Your task to perform on an android device: open a bookmark in the chrome app Image 0: 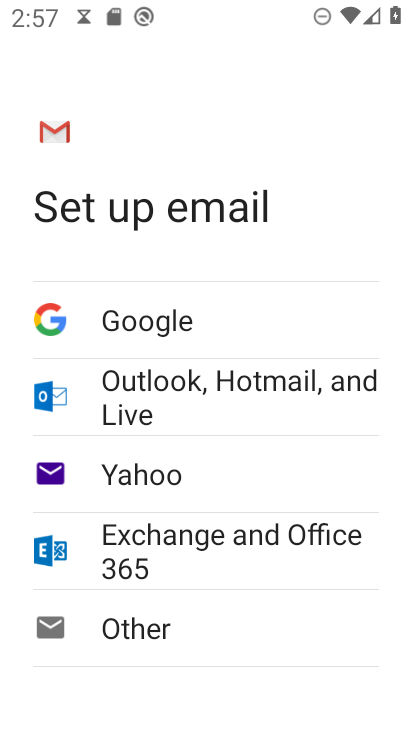
Step 0: press back button
Your task to perform on an android device: open a bookmark in the chrome app Image 1: 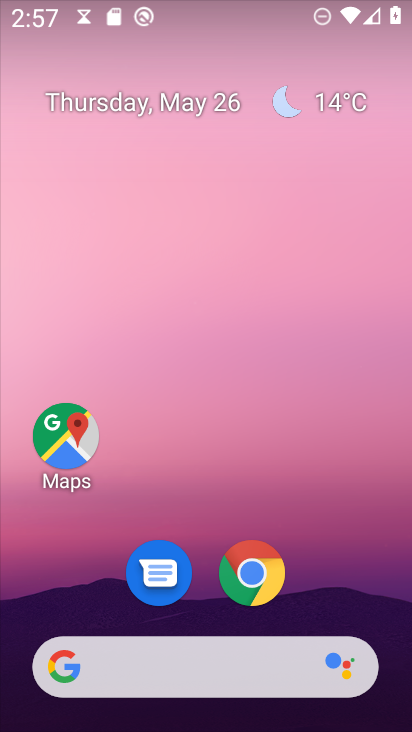
Step 1: drag from (332, 575) to (302, 39)
Your task to perform on an android device: open a bookmark in the chrome app Image 2: 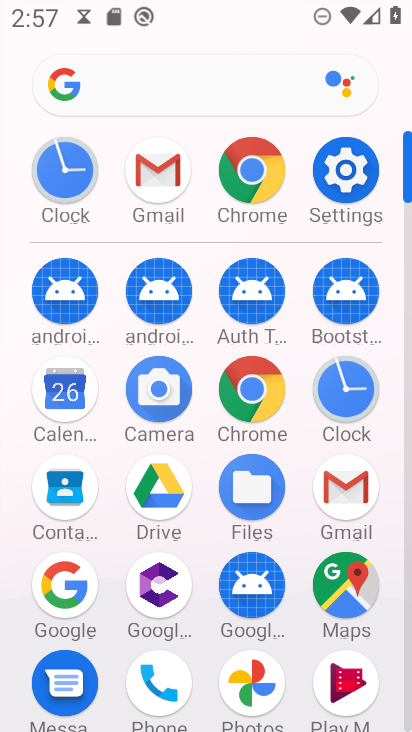
Step 2: drag from (17, 597) to (16, 255)
Your task to perform on an android device: open a bookmark in the chrome app Image 3: 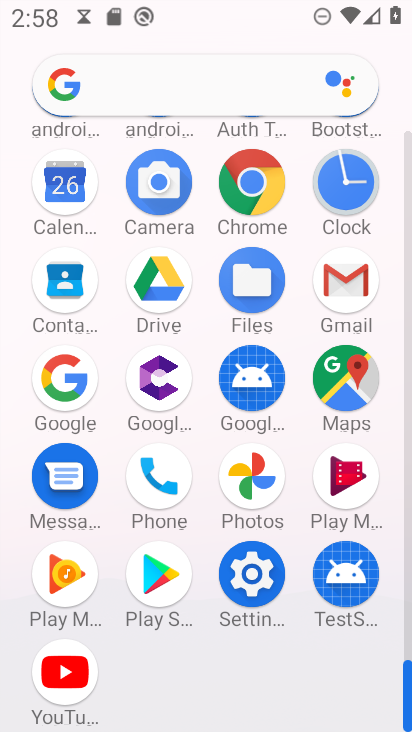
Step 3: click (250, 177)
Your task to perform on an android device: open a bookmark in the chrome app Image 4: 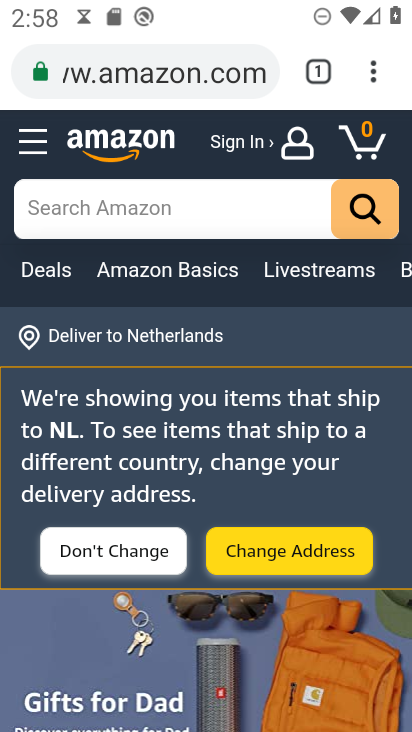
Step 4: drag from (374, 71) to (143, 218)
Your task to perform on an android device: open a bookmark in the chrome app Image 5: 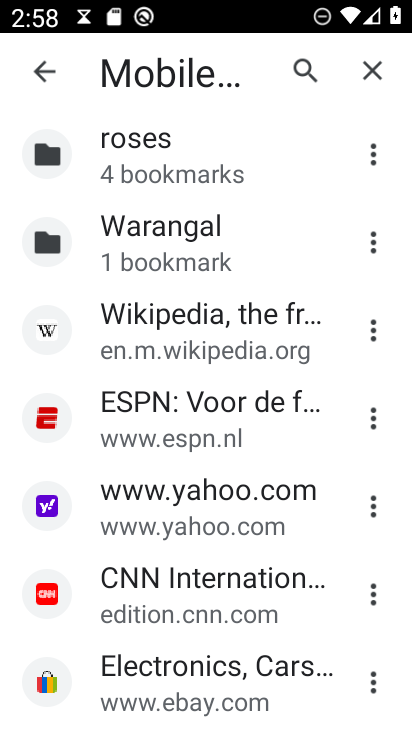
Step 5: click (248, 344)
Your task to perform on an android device: open a bookmark in the chrome app Image 6: 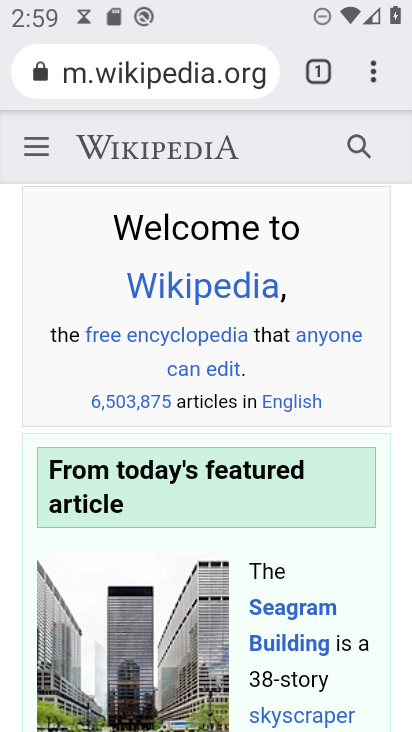
Step 6: task complete